Your task to perform on an android device: check google app version Image 0: 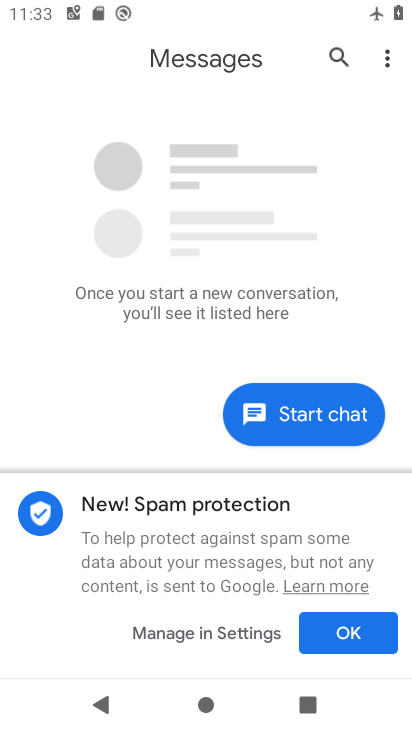
Step 0: press home button
Your task to perform on an android device: check google app version Image 1: 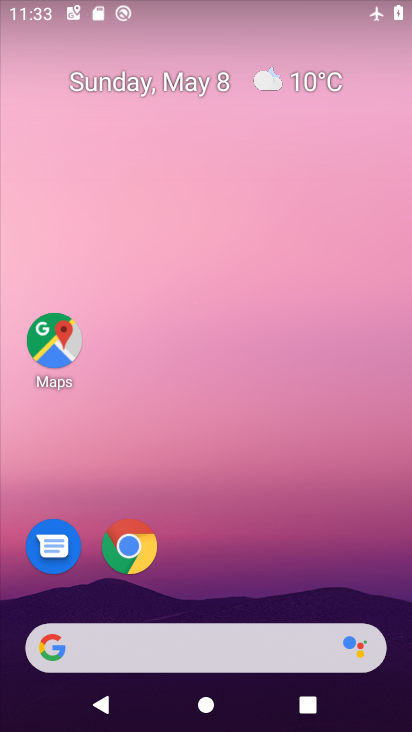
Step 1: click (121, 542)
Your task to perform on an android device: check google app version Image 2: 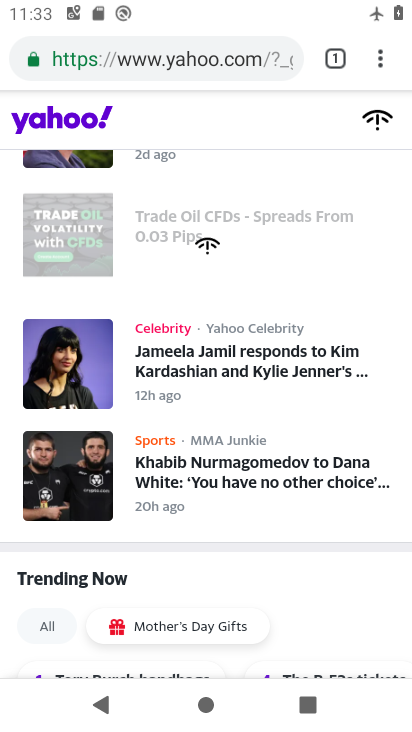
Step 2: click (378, 59)
Your task to perform on an android device: check google app version Image 3: 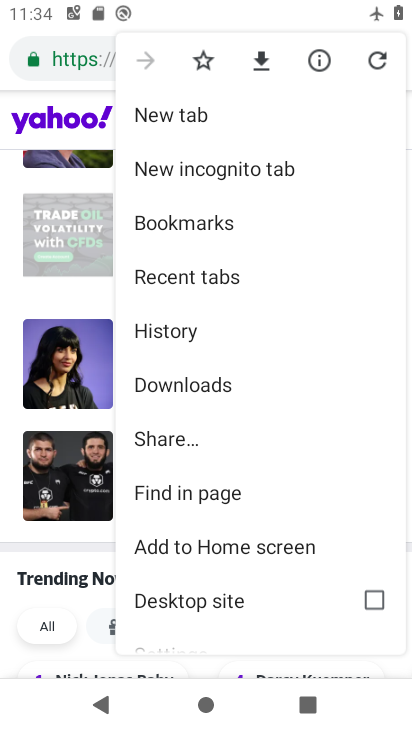
Step 3: drag from (322, 578) to (288, 87)
Your task to perform on an android device: check google app version Image 4: 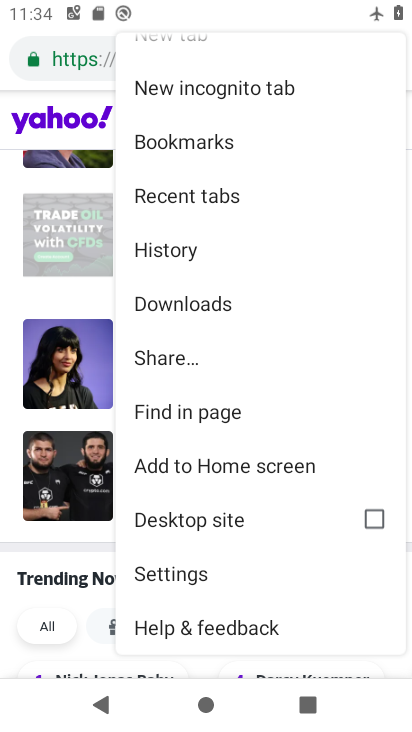
Step 4: click (175, 577)
Your task to perform on an android device: check google app version Image 5: 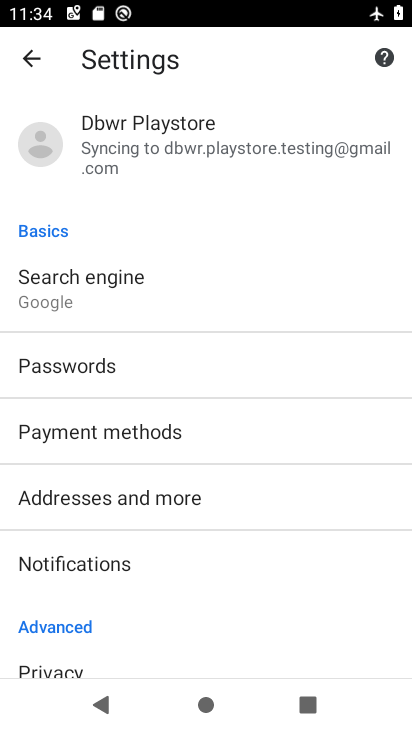
Step 5: drag from (252, 595) to (233, 84)
Your task to perform on an android device: check google app version Image 6: 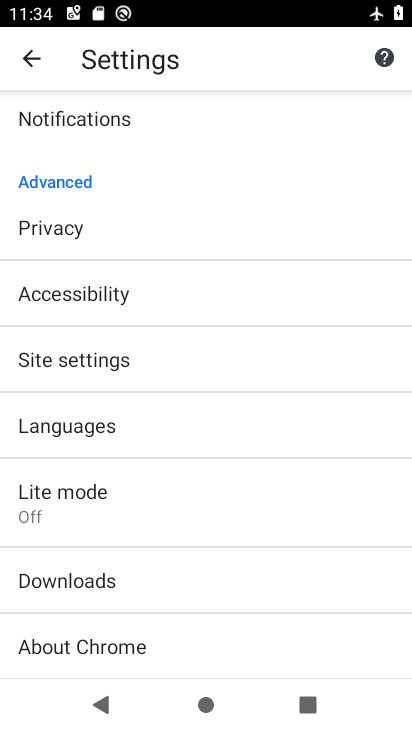
Step 6: click (87, 646)
Your task to perform on an android device: check google app version Image 7: 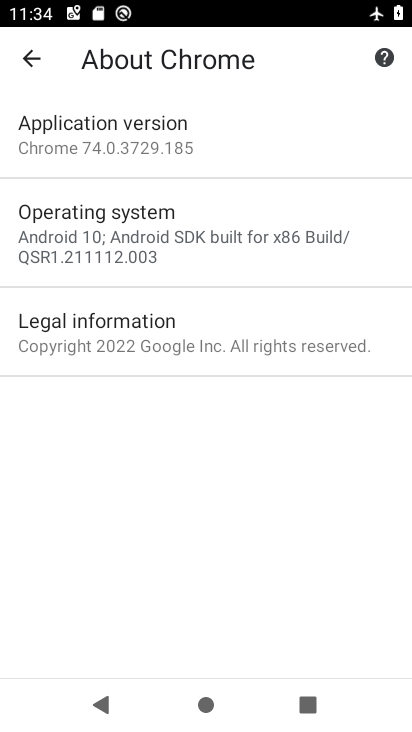
Step 7: task complete